Your task to perform on an android device: open chrome privacy settings Image 0: 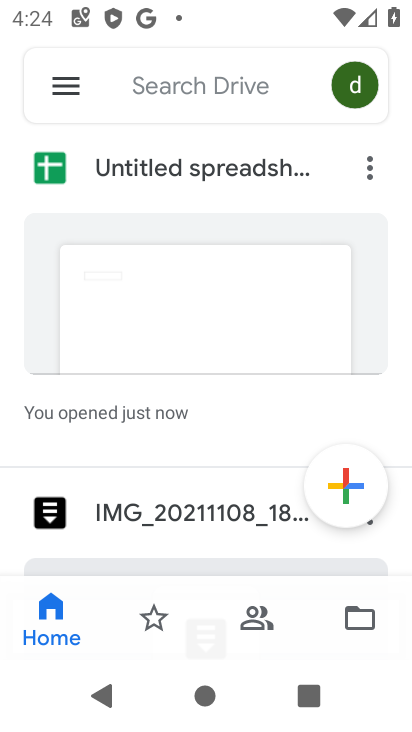
Step 0: press home button
Your task to perform on an android device: open chrome privacy settings Image 1: 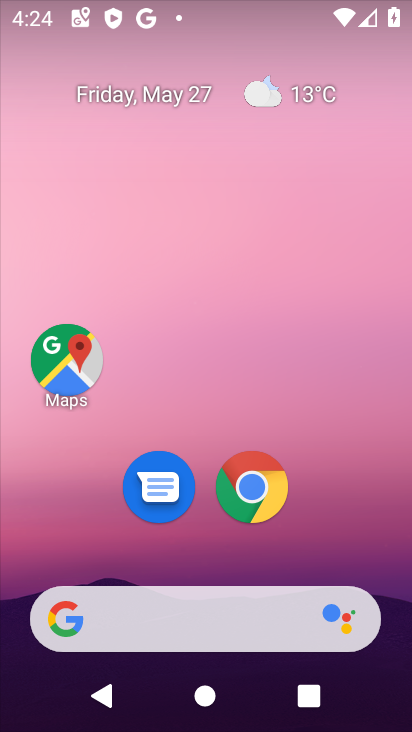
Step 1: drag from (341, 357) to (339, 116)
Your task to perform on an android device: open chrome privacy settings Image 2: 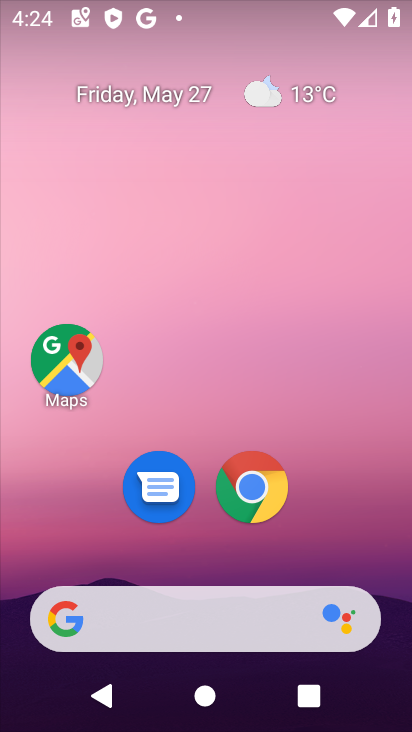
Step 2: drag from (319, 519) to (318, 112)
Your task to perform on an android device: open chrome privacy settings Image 3: 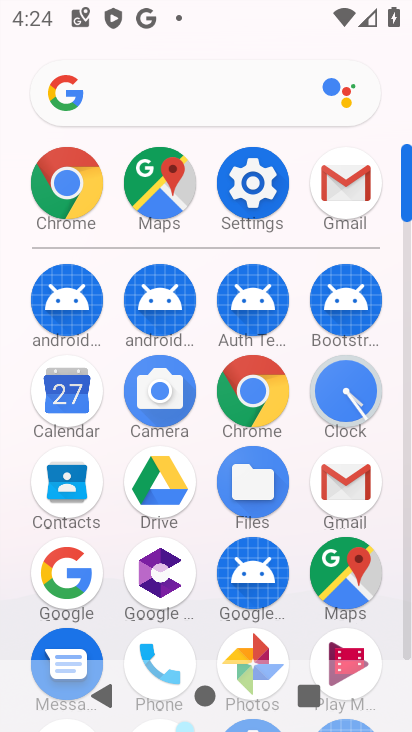
Step 3: click (68, 190)
Your task to perform on an android device: open chrome privacy settings Image 4: 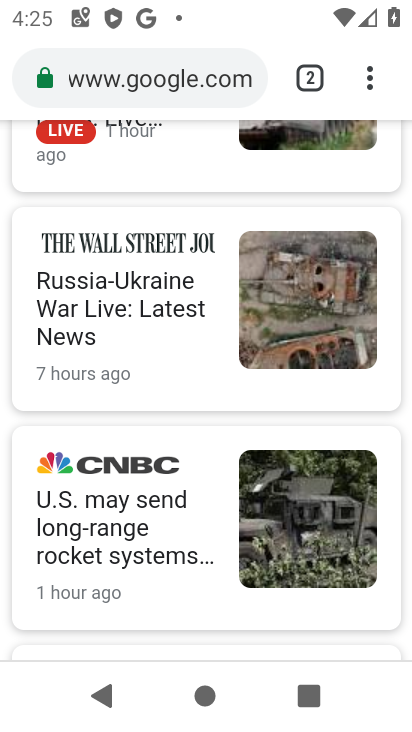
Step 4: drag from (374, 82) to (137, 532)
Your task to perform on an android device: open chrome privacy settings Image 5: 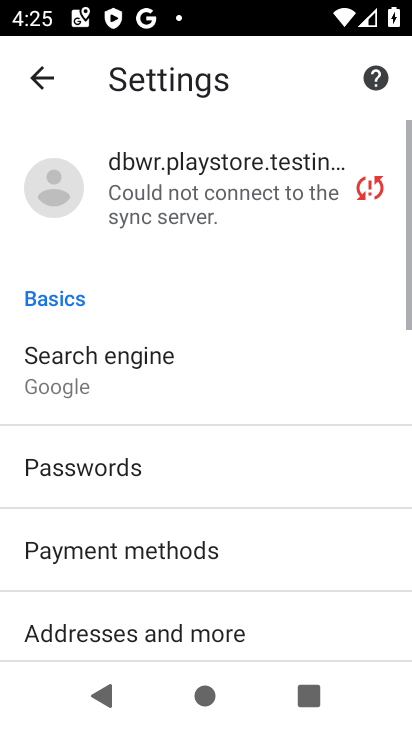
Step 5: drag from (139, 527) to (198, 117)
Your task to perform on an android device: open chrome privacy settings Image 6: 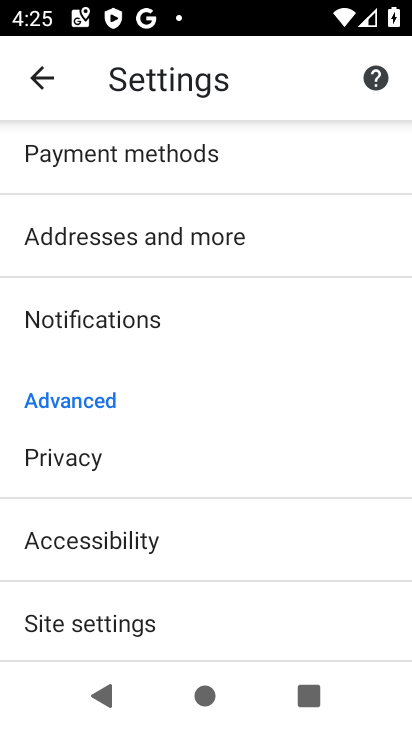
Step 6: click (51, 454)
Your task to perform on an android device: open chrome privacy settings Image 7: 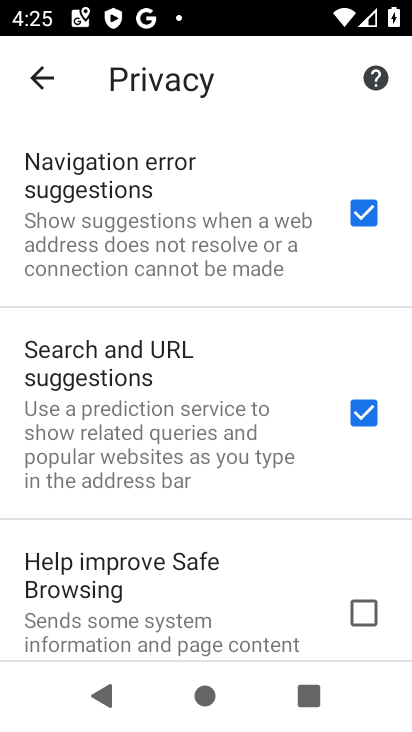
Step 7: task complete